Your task to perform on an android device: check the backup settings in the google photos Image 0: 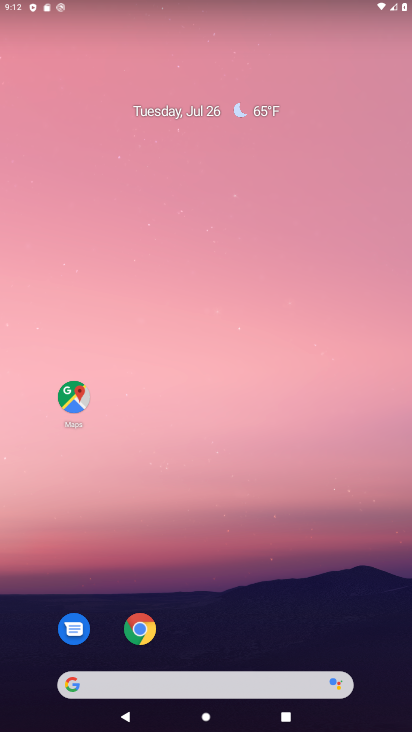
Step 0: click (269, 140)
Your task to perform on an android device: check the backup settings in the google photos Image 1: 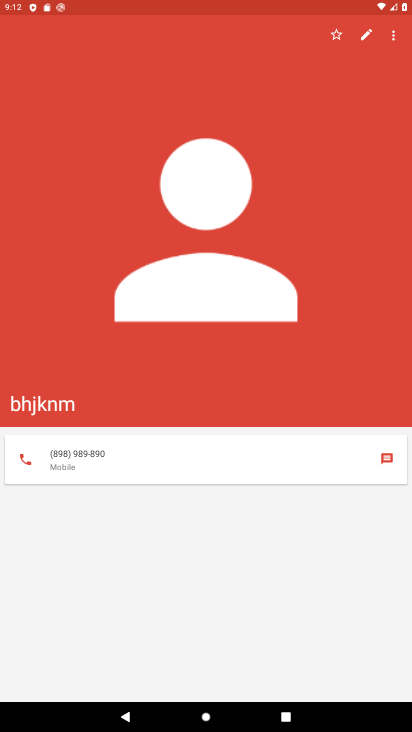
Step 1: press home button
Your task to perform on an android device: check the backup settings in the google photos Image 2: 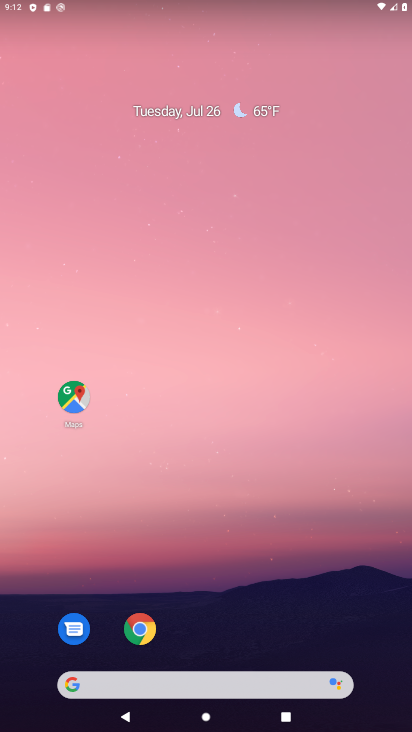
Step 2: drag from (284, 620) to (379, 40)
Your task to perform on an android device: check the backup settings in the google photos Image 3: 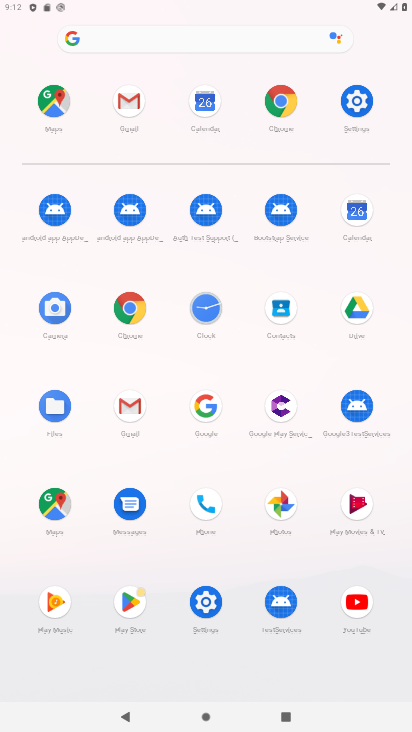
Step 3: click (287, 496)
Your task to perform on an android device: check the backup settings in the google photos Image 4: 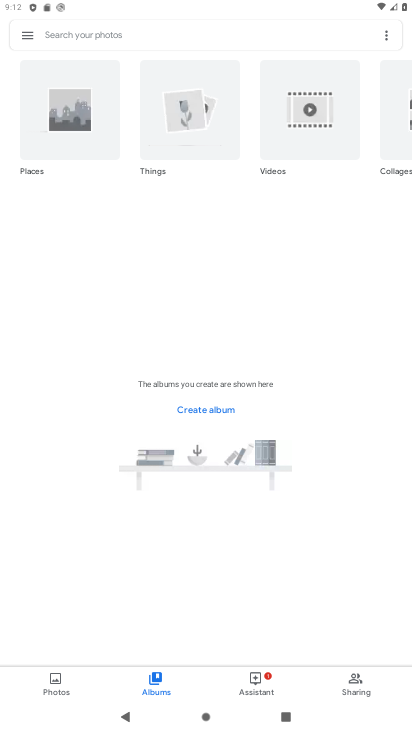
Step 4: click (20, 28)
Your task to perform on an android device: check the backup settings in the google photos Image 5: 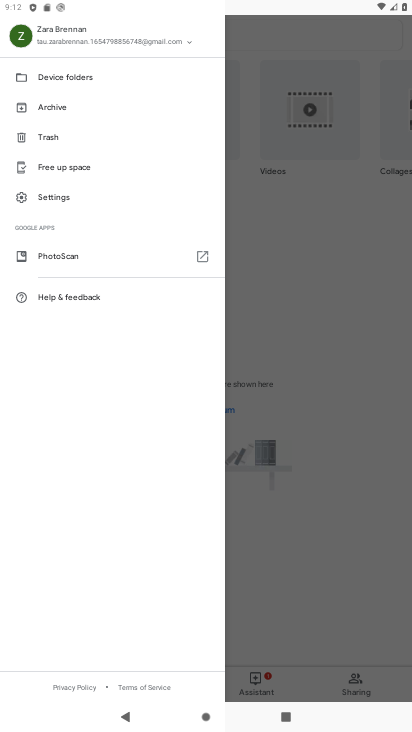
Step 5: click (74, 201)
Your task to perform on an android device: check the backup settings in the google photos Image 6: 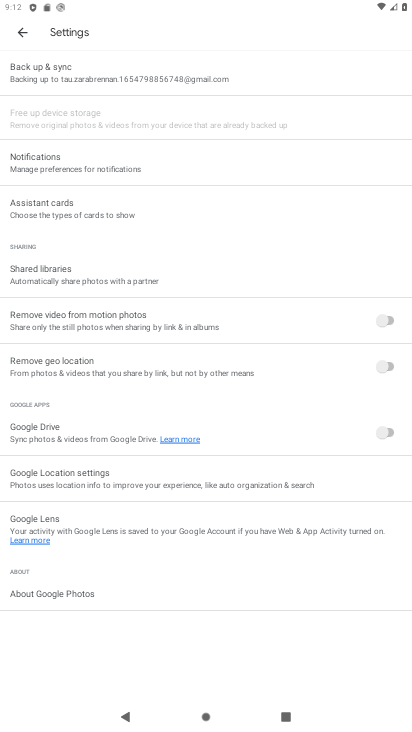
Step 6: click (122, 72)
Your task to perform on an android device: check the backup settings in the google photos Image 7: 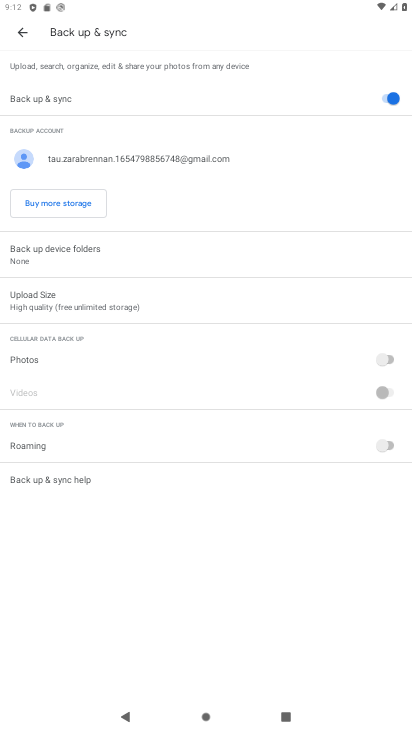
Step 7: task complete